Your task to perform on an android device: Open network settings Image 0: 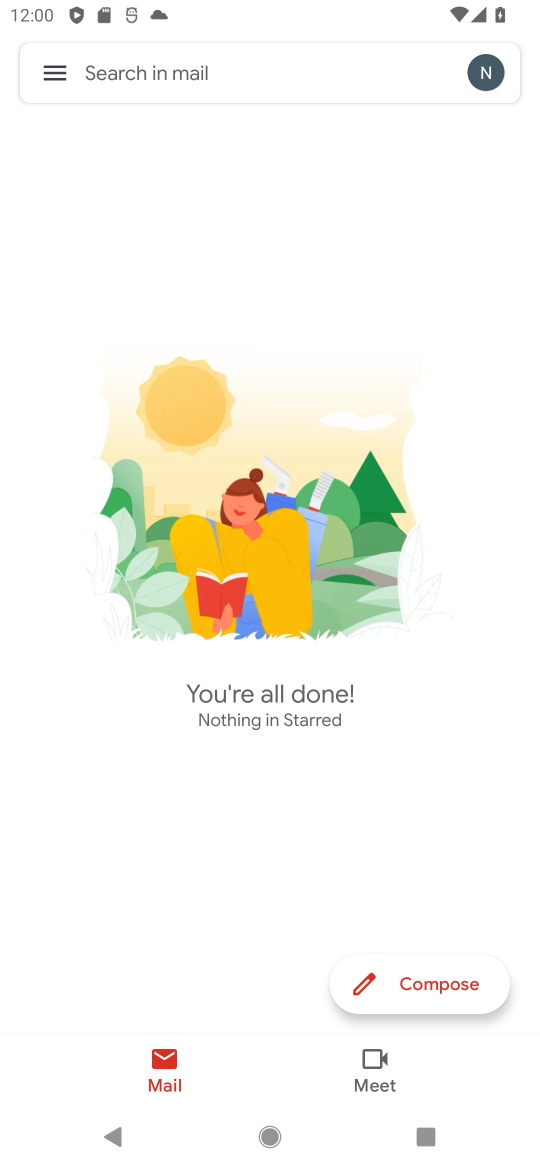
Step 0: press home button
Your task to perform on an android device: Open network settings Image 1: 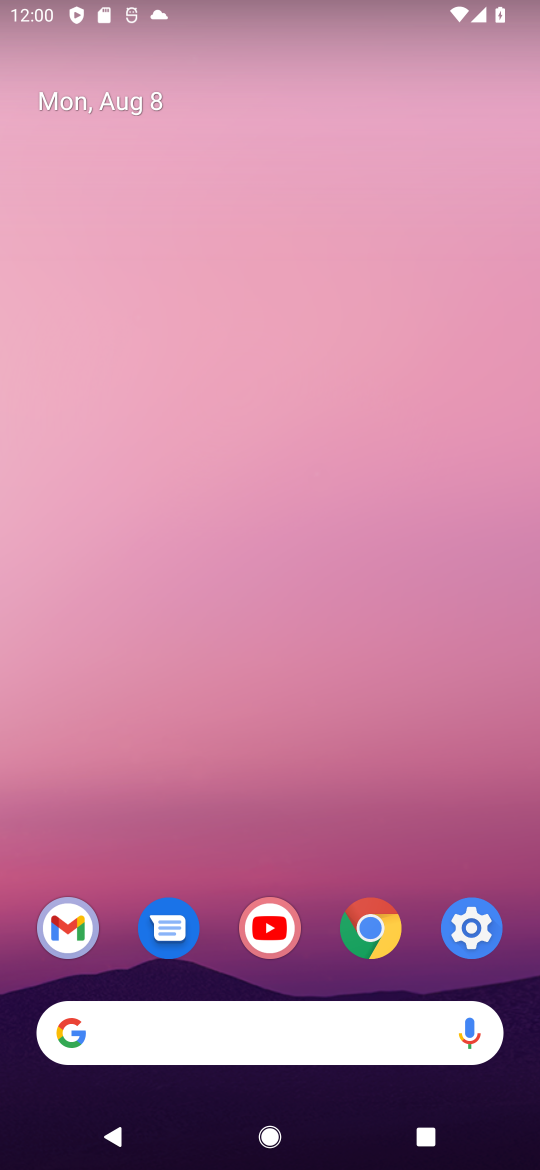
Step 1: click (468, 919)
Your task to perform on an android device: Open network settings Image 2: 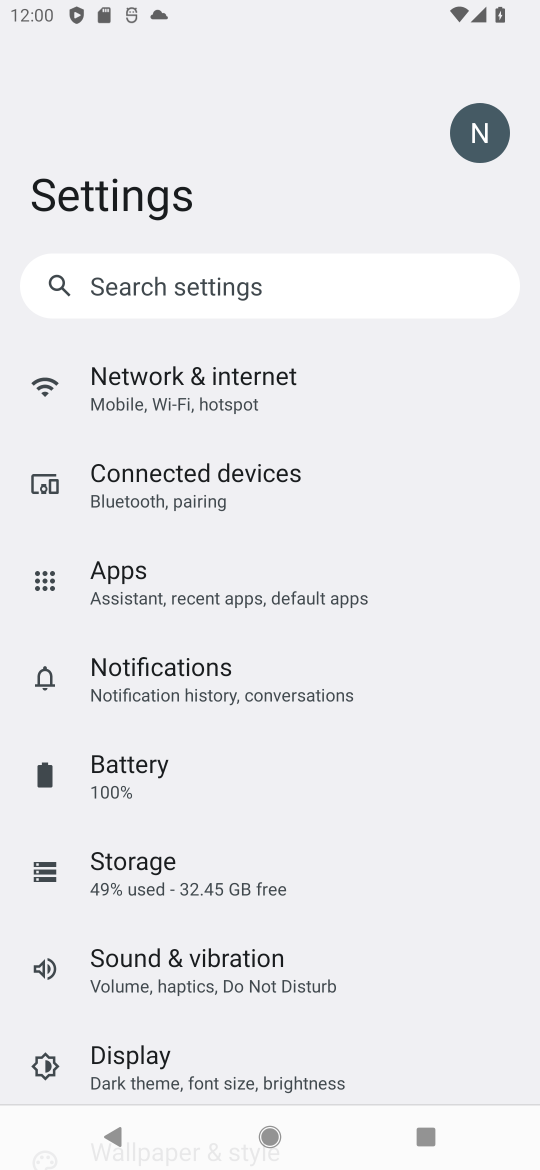
Step 2: click (180, 386)
Your task to perform on an android device: Open network settings Image 3: 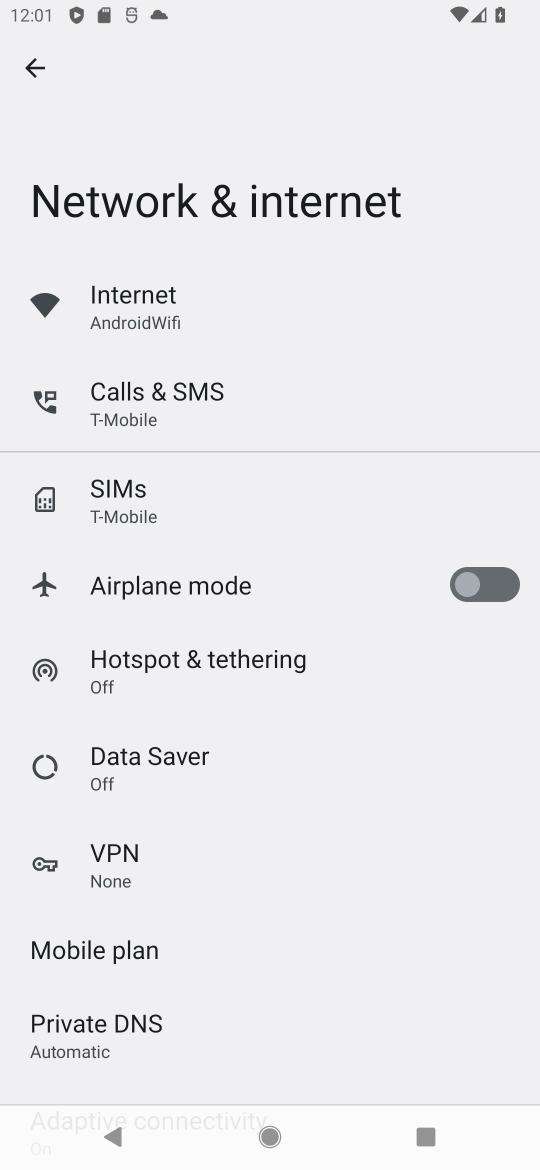
Step 3: task complete